Your task to perform on an android device: Go to calendar. Show me events next week Image 0: 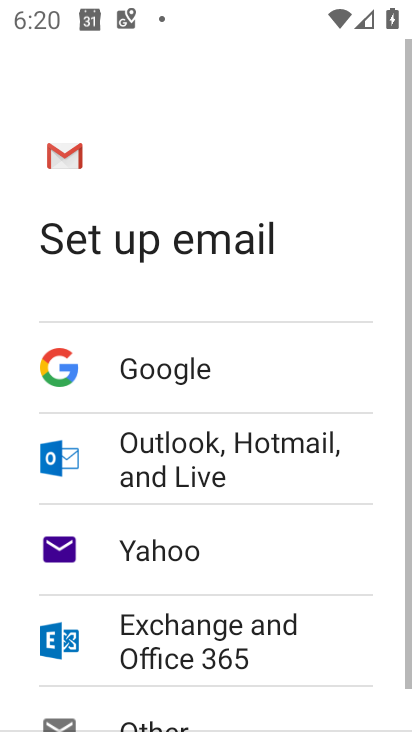
Step 0: press home button
Your task to perform on an android device: Go to calendar. Show me events next week Image 1: 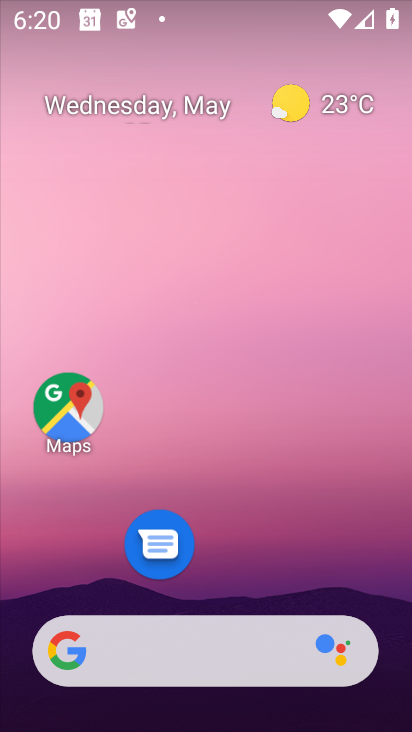
Step 1: drag from (272, 485) to (207, 52)
Your task to perform on an android device: Go to calendar. Show me events next week Image 2: 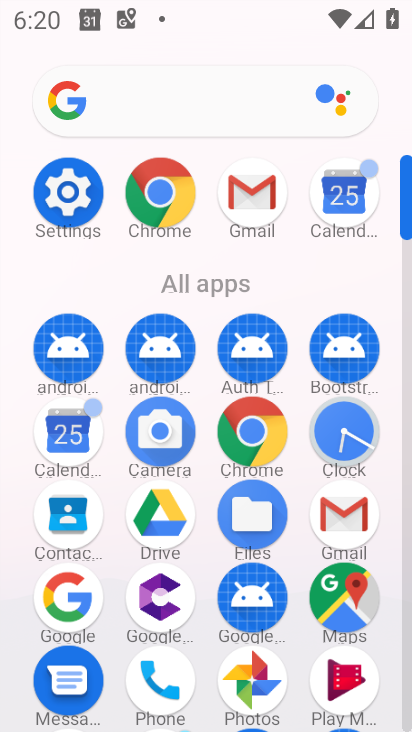
Step 2: click (66, 438)
Your task to perform on an android device: Go to calendar. Show me events next week Image 3: 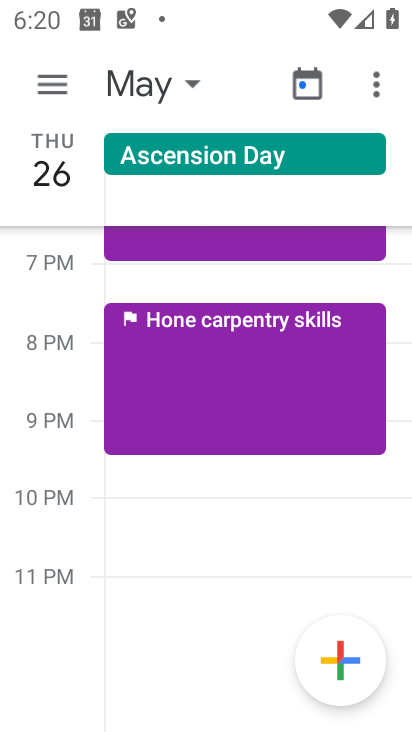
Step 3: click (50, 80)
Your task to perform on an android device: Go to calendar. Show me events next week Image 4: 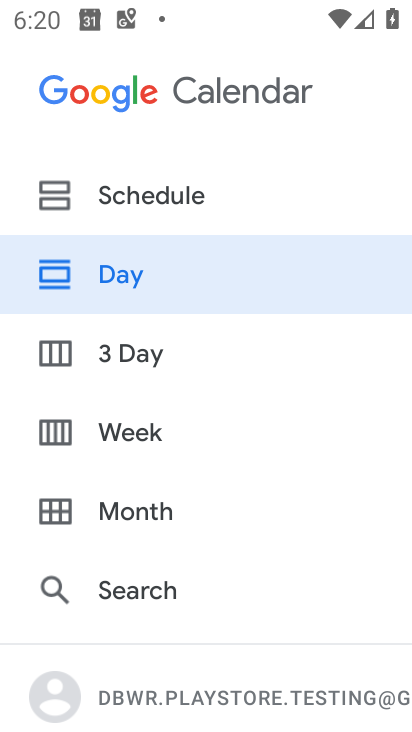
Step 4: click (133, 427)
Your task to perform on an android device: Go to calendar. Show me events next week Image 5: 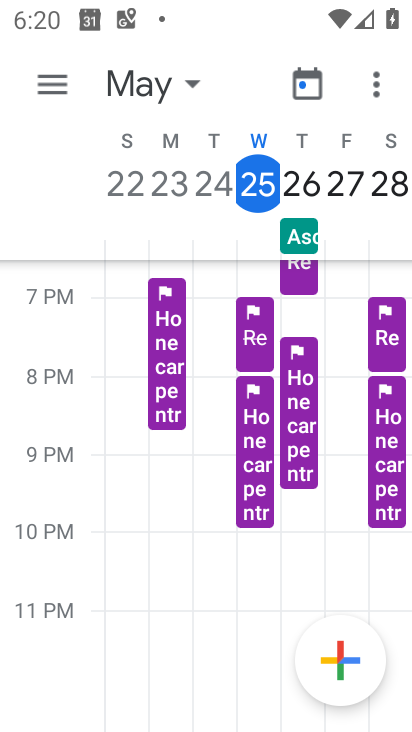
Step 5: click (193, 87)
Your task to perform on an android device: Go to calendar. Show me events next week Image 6: 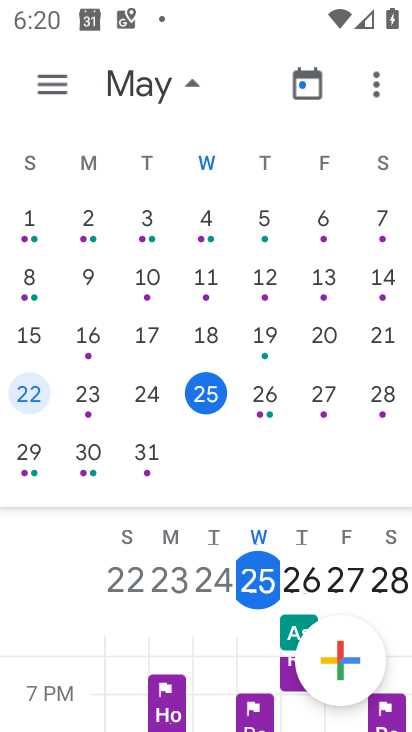
Step 6: drag from (380, 294) to (38, 300)
Your task to perform on an android device: Go to calendar. Show me events next week Image 7: 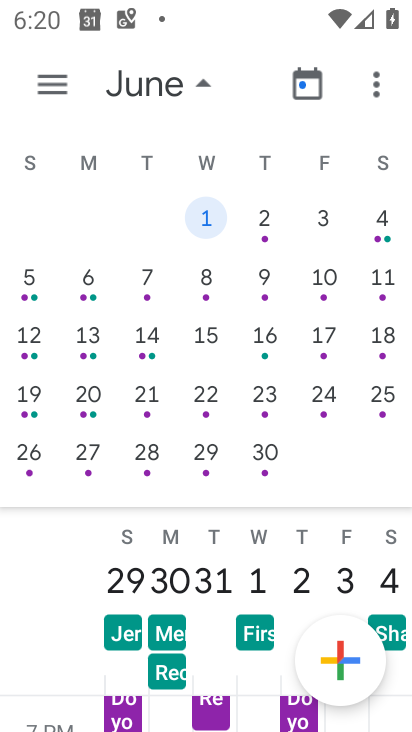
Step 7: click (213, 208)
Your task to perform on an android device: Go to calendar. Show me events next week Image 8: 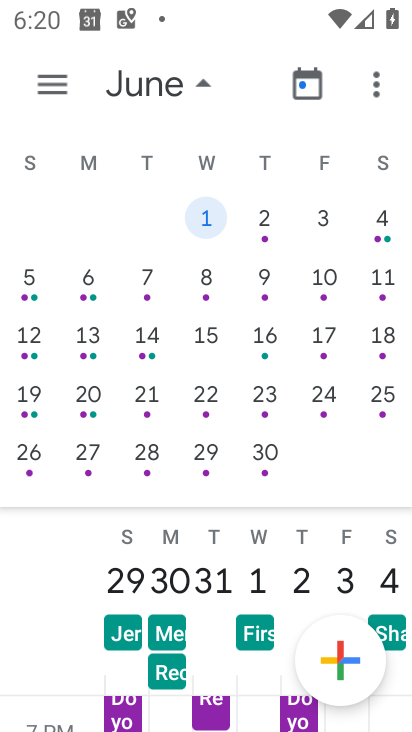
Step 8: task complete